Your task to perform on an android device: toggle airplane mode Image 0: 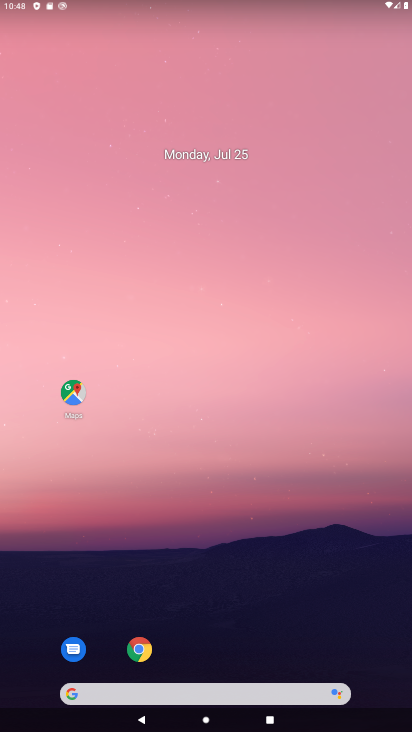
Step 0: drag from (262, 531) to (238, 30)
Your task to perform on an android device: toggle airplane mode Image 1: 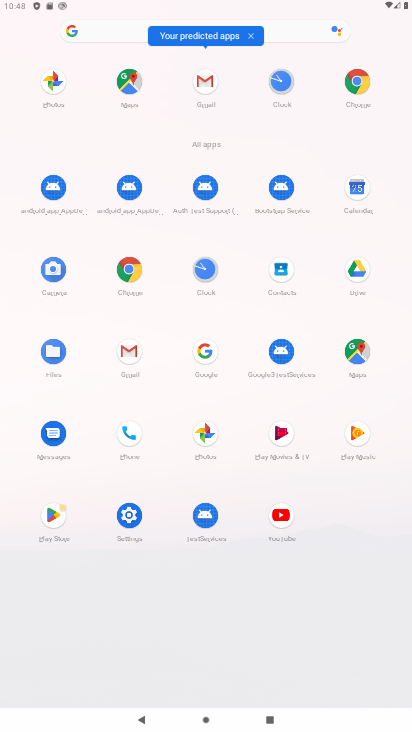
Step 1: click (132, 516)
Your task to perform on an android device: toggle airplane mode Image 2: 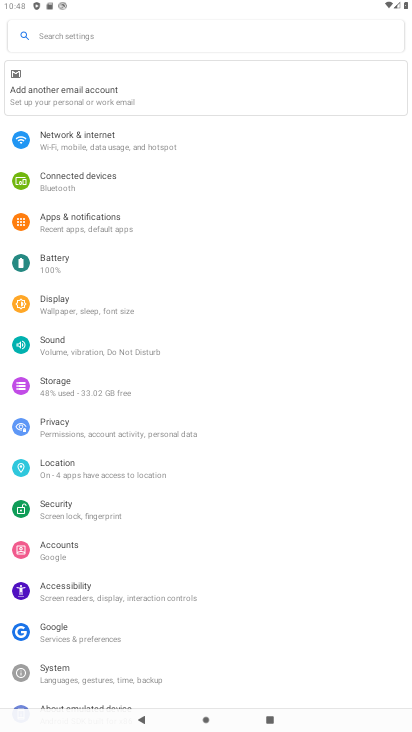
Step 2: click (81, 140)
Your task to perform on an android device: toggle airplane mode Image 3: 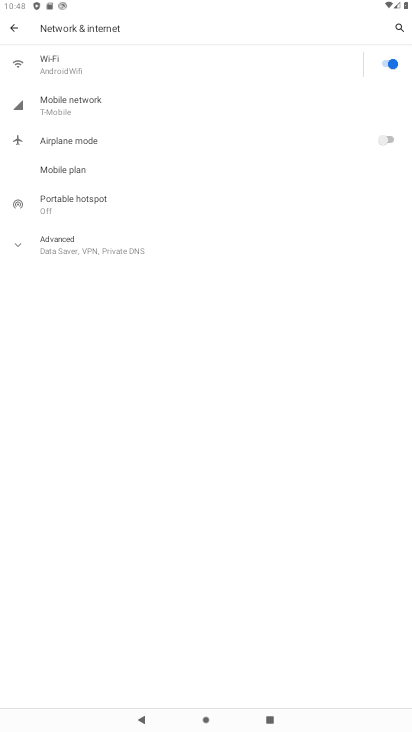
Step 3: click (382, 150)
Your task to perform on an android device: toggle airplane mode Image 4: 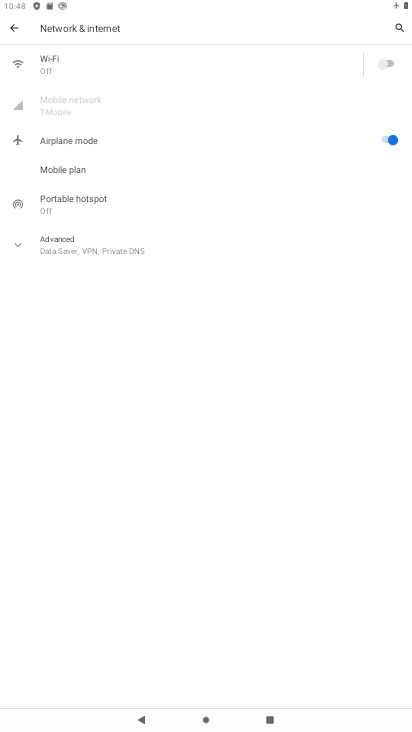
Step 4: task complete